Your task to perform on an android device: delete location history Image 0: 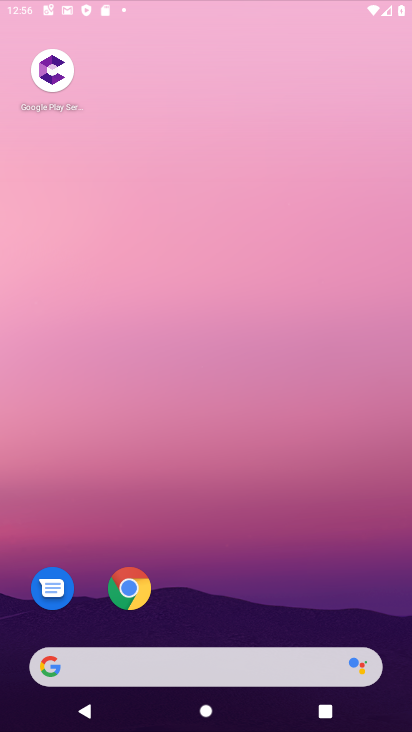
Step 0: click (52, 385)
Your task to perform on an android device: delete location history Image 1: 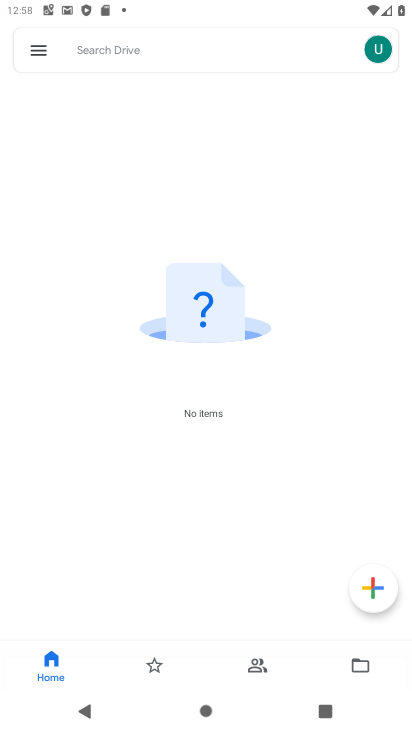
Step 1: press home button
Your task to perform on an android device: delete location history Image 2: 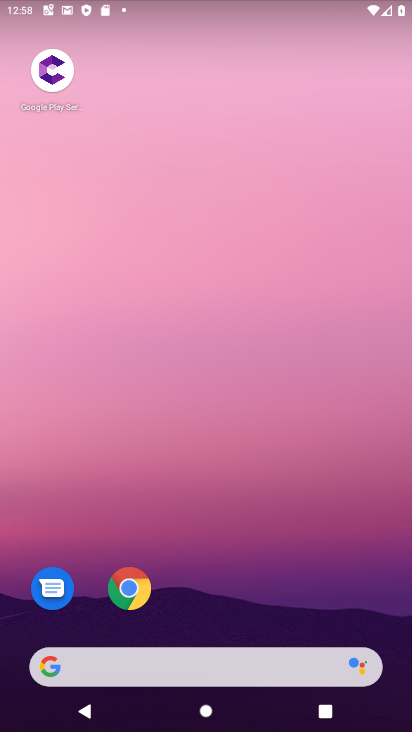
Step 2: drag from (221, 648) to (149, 236)
Your task to perform on an android device: delete location history Image 3: 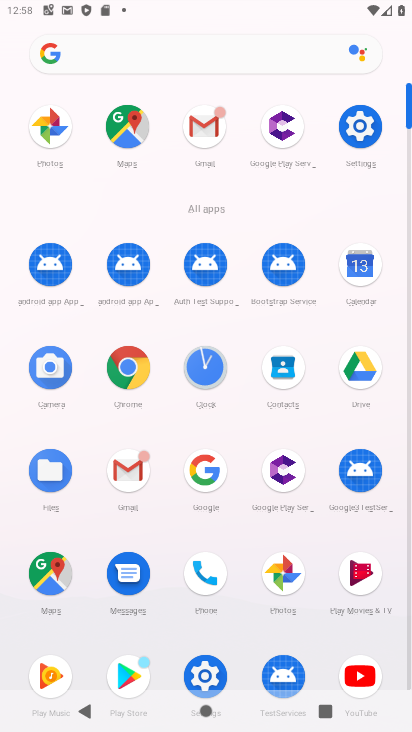
Step 3: click (357, 138)
Your task to perform on an android device: delete location history Image 4: 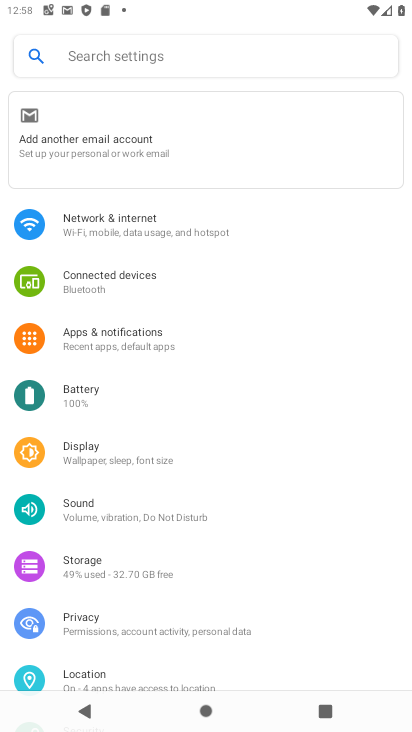
Step 4: click (128, 682)
Your task to perform on an android device: delete location history Image 5: 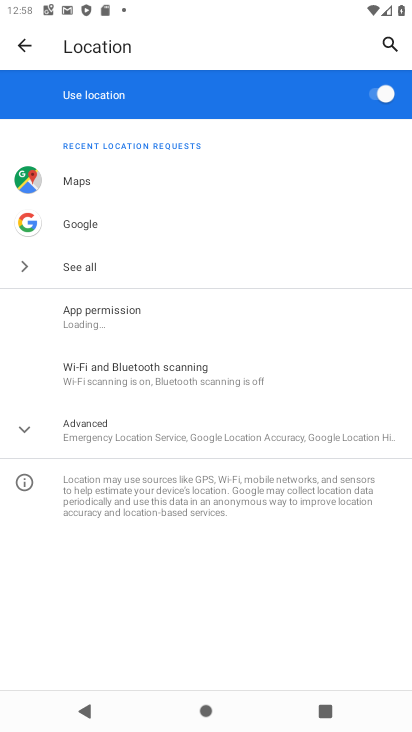
Step 5: click (120, 431)
Your task to perform on an android device: delete location history Image 6: 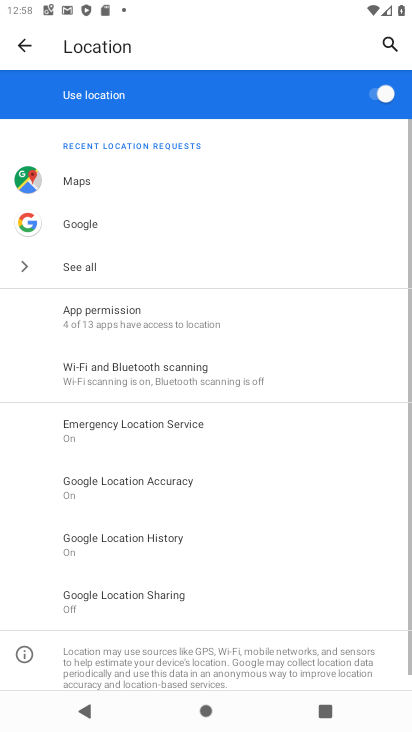
Step 6: click (138, 556)
Your task to perform on an android device: delete location history Image 7: 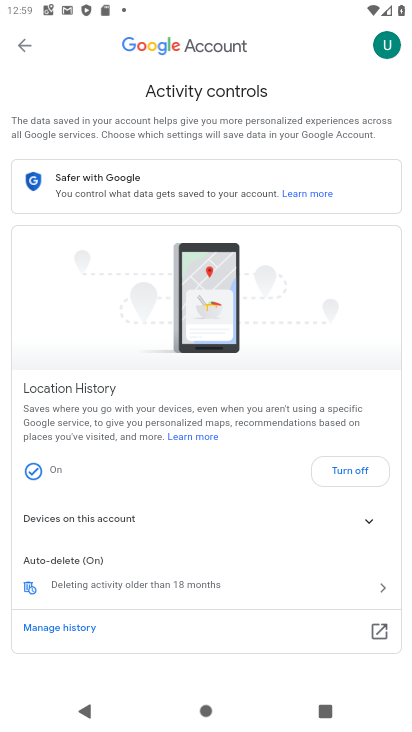
Step 7: click (191, 583)
Your task to perform on an android device: delete location history Image 8: 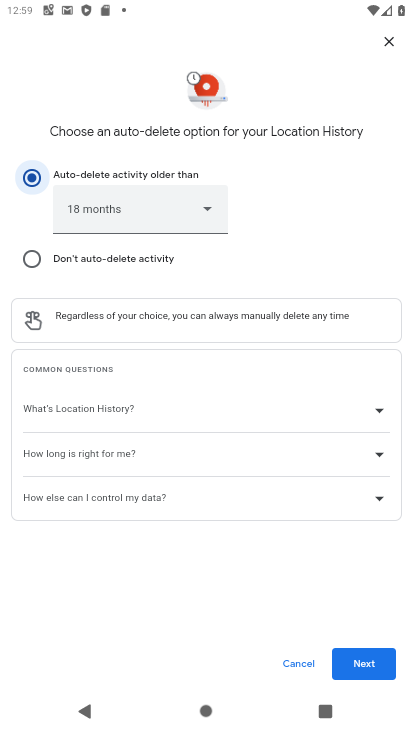
Step 8: click (359, 664)
Your task to perform on an android device: delete location history Image 9: 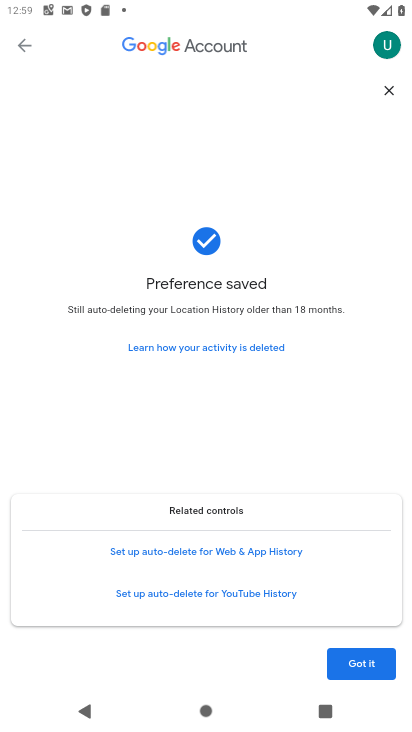
Step 9: click (359, 664)
Your task to perform on an android device: delete location history Image 10: 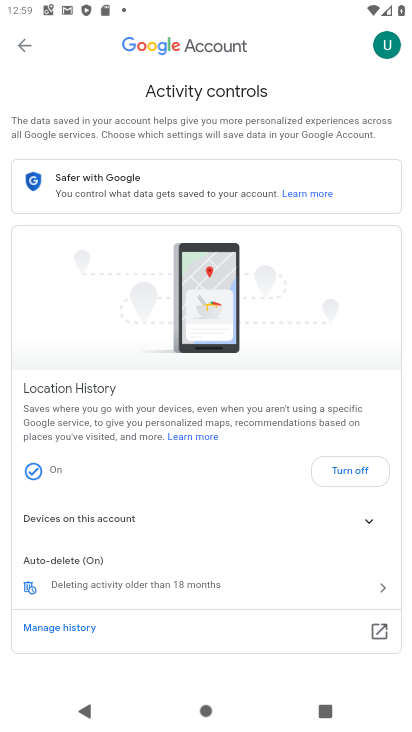
Step 10: task complete